Your task to perform on an android device: Open Google Maps and go to "Timeline" Image 0: 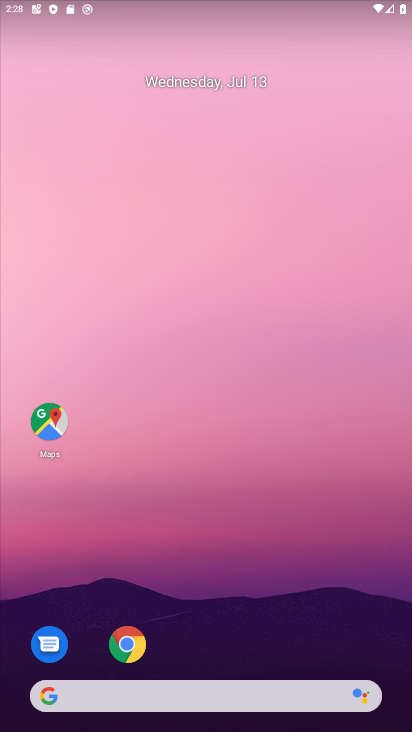
Step 0: click (49, 421)
Your task to perform on an android device: Open Google Maps and go to "Timeline" Image 1: 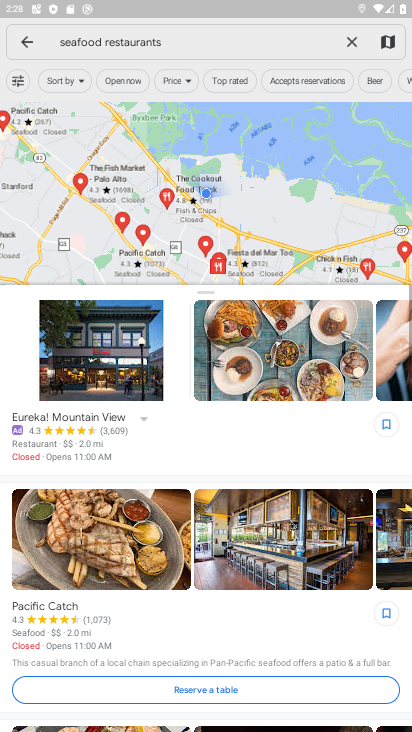
Step 1: click (24, 40)
Your task to perform on an android device: Open Google Maps and go to "Timeline" Image 2: 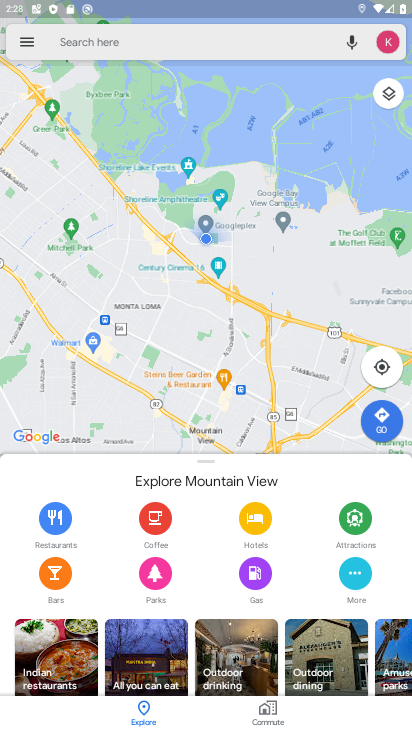
Step 2: click (29, 39)
Your task to perform on an android device: Open Google Maps and go to "Timeline" Image 3: 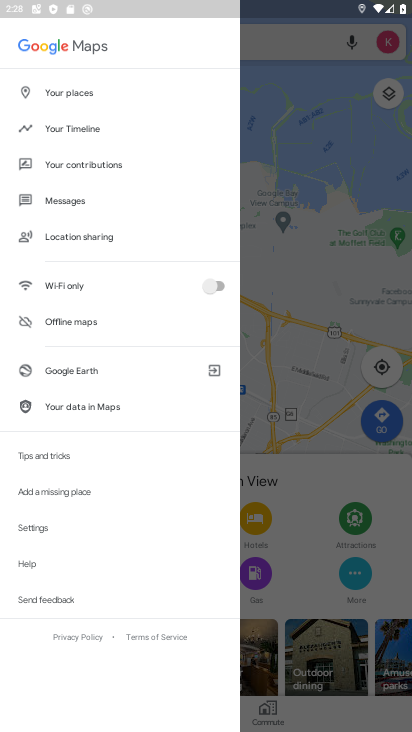
Step 3: click (90, 127)
Your task to perform on an android device: Open Google Maps and go to "Timeline" Image 4: 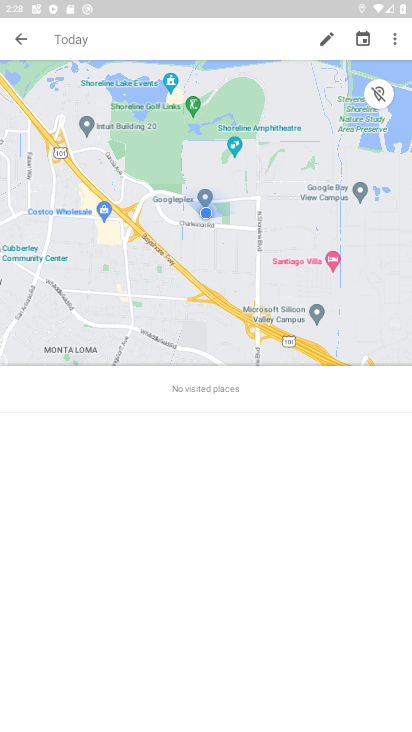
Step 4: task complete